Your task to perform on an android device: turn pop-ups off in chrome Image 0: 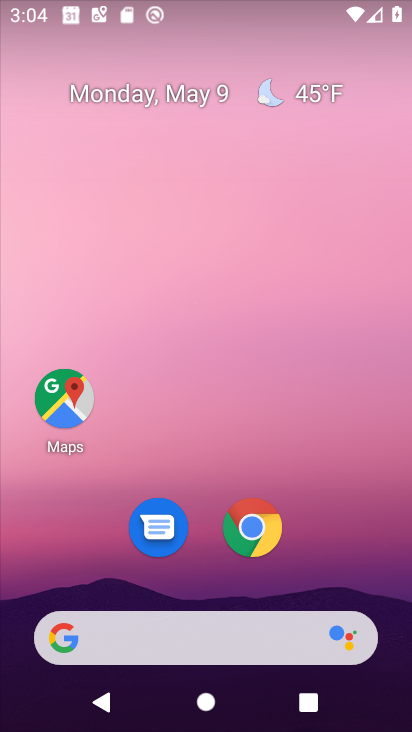
Step 0: drag from (224, 672) to (312, 57)
Your task to perform on an android device: turn pop-ups off in chrome Image 1: 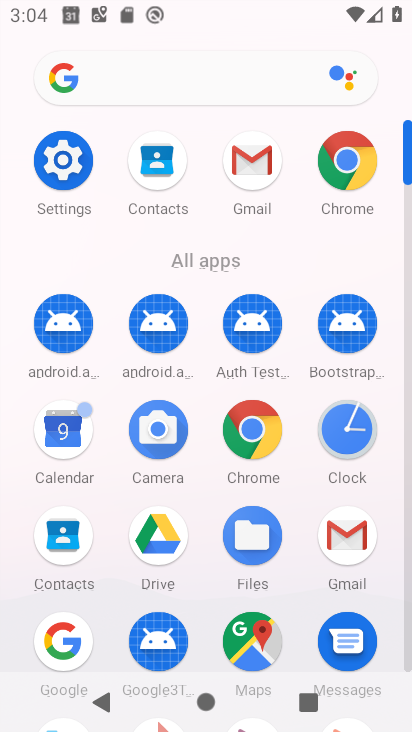
Step 1: click (358, 151)
Your task to perform on an android device: turn pop-ups off in chrome Image 2: 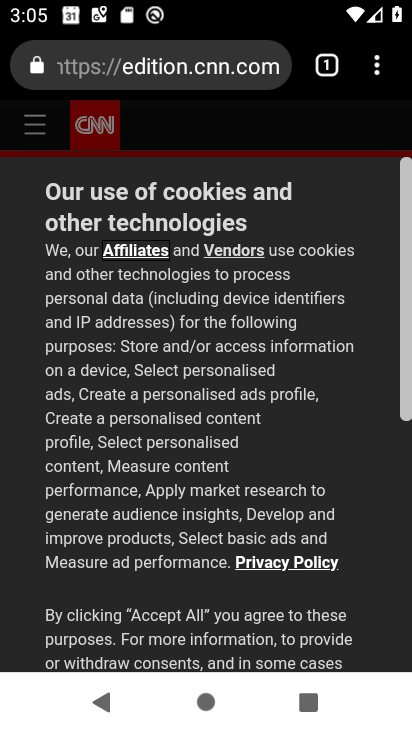
Step 2: click (385, 86)
Your task to perform on an android device: turn pop-ups off in chrome Image 3: 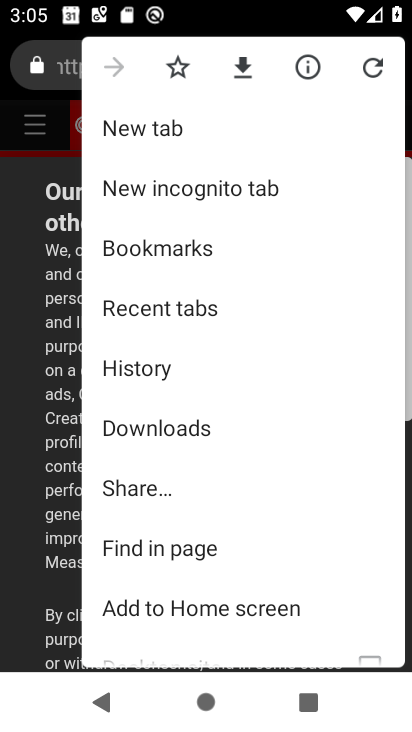
Step 3: drag from (278, 605) to (257, 185)
Your task to perform on an android device: turn pop-ups off in chrome Image 4: 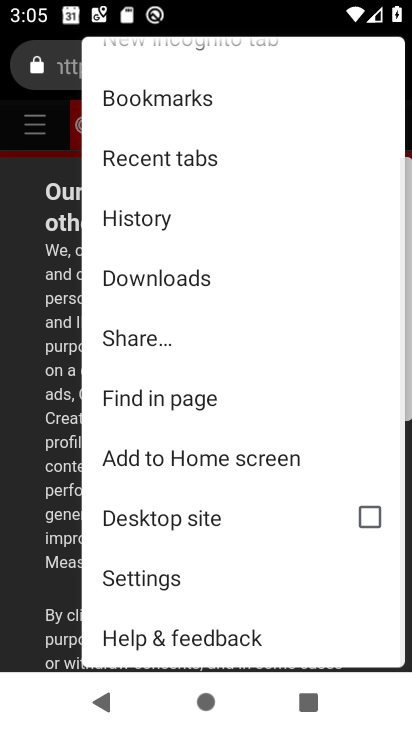
Step 4: click (202, 586)
Your task to perform on an android device: turn pop-ups off in chrome Image 5: 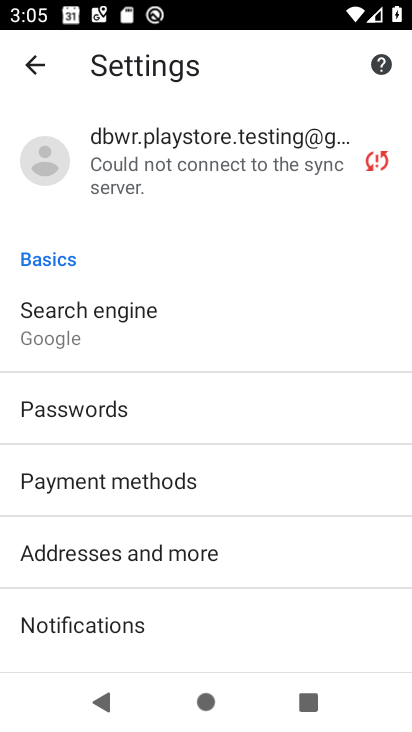
Step 5: drag from (174, 604) to (215, 230)
Your task to perform on an android device: turn pop-ups off in chrome Image 6: 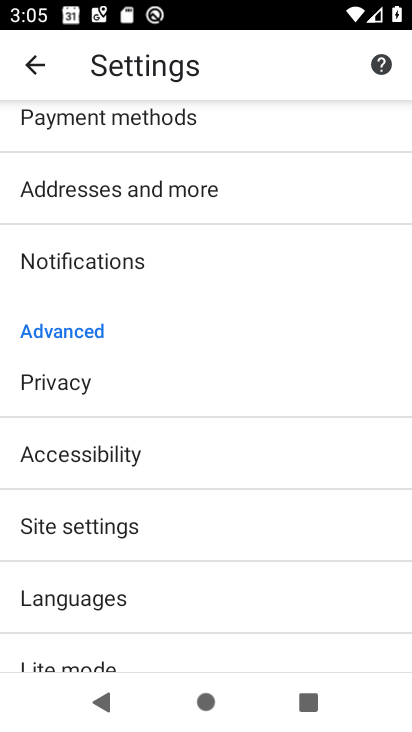
Step 6: drag from (152, 526) to (199, 297)
Your task to perform on an android device: turn pop-ups off in chrome Image 7: 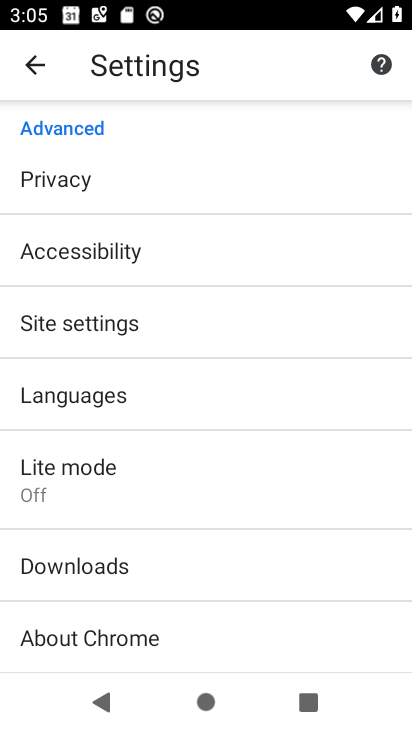
Step 7: drag from (162, 507) to (224, 295)
Your task to perform on an android device: turn pop-ups off in chrome Image 8: 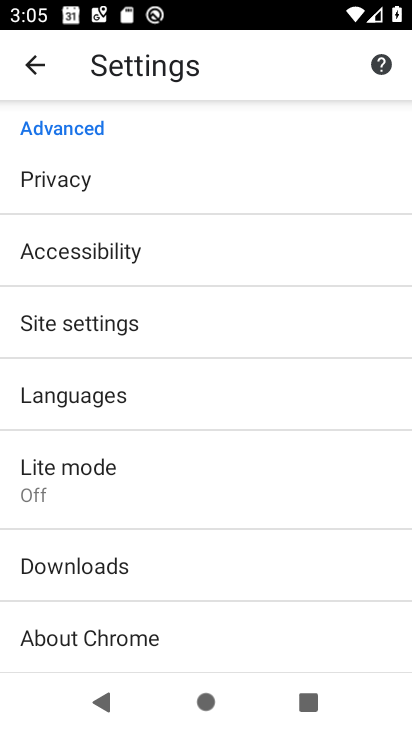
Step 8: click (146, 331)
Your task to perform on an android device: turn pop-ups off in chrome Image 9: 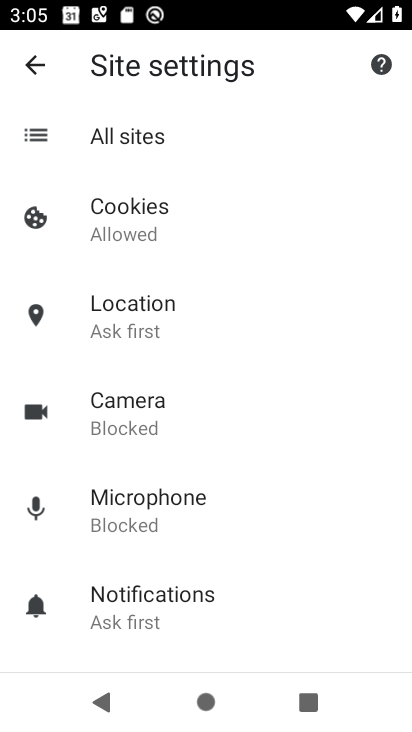
Step 9: drag from (165, 517) to (204, 260)
Your task to perform on an android device: turn pop-ups off in chrome Image 10: 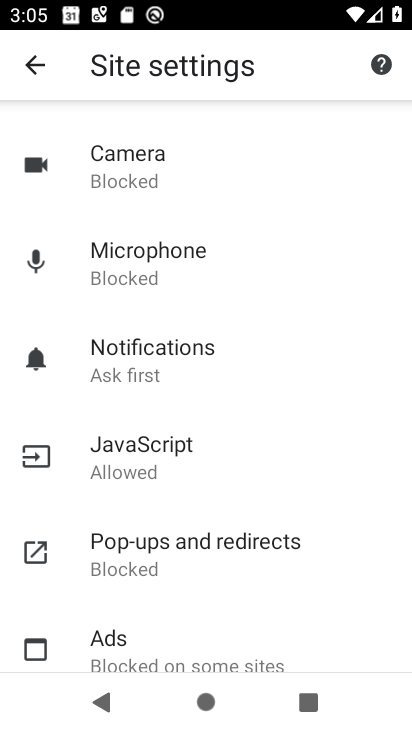
Step 10: click (200, 581)
Your task to perform on an android device: turn pop-ups off in chrome Image 11: 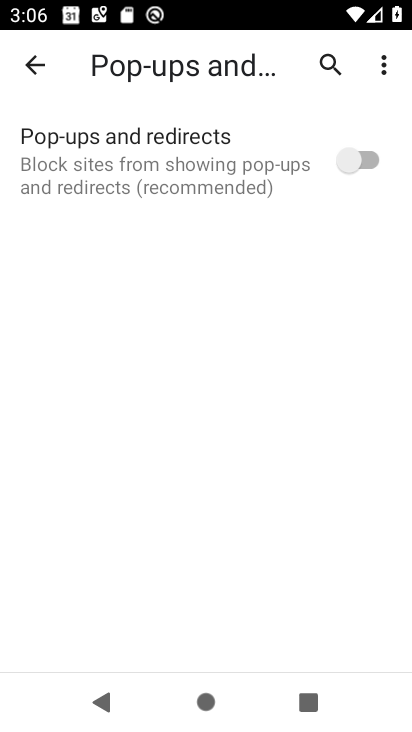
Step 11: task complete